Your task to perform on an android device: change notification settings in the gmail app Image 0: 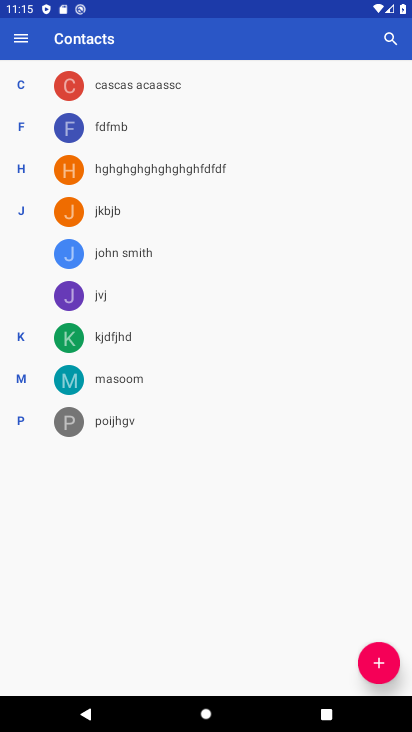
Step 0: press home button
Your task to perform on an android device: change notification settings in the gmail app Image 1: 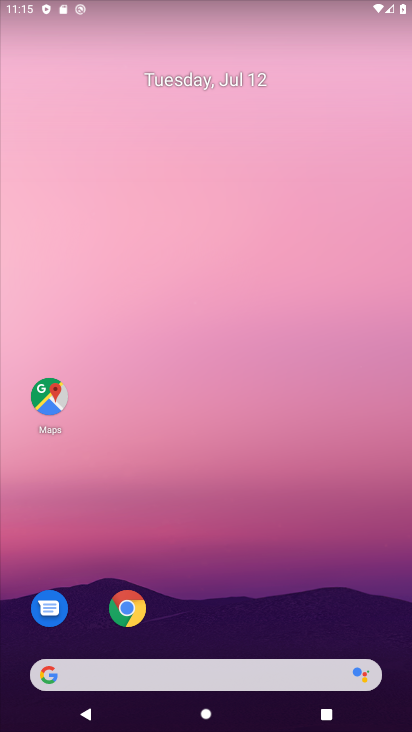
Step 1: drag from (193, 634) to (232, 35)
Your task to perform on an android device: change notification settings in the gmail app Image 2: 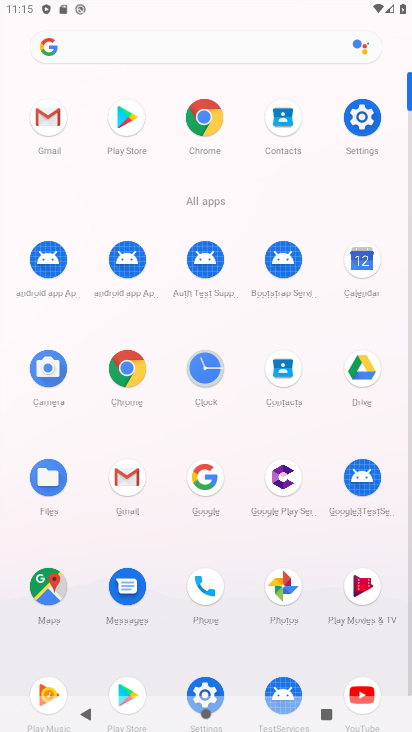
Step 2: click (28, 108)
Your task to perform on an android device: change notification settings in the gmail app Image 3: 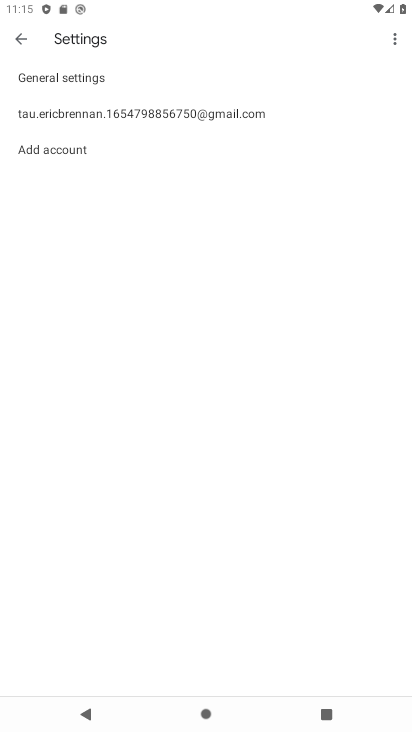
Step 3: click (116, 117)
Your task to perform on an android device: change notification settings in the gmail app Image 4: 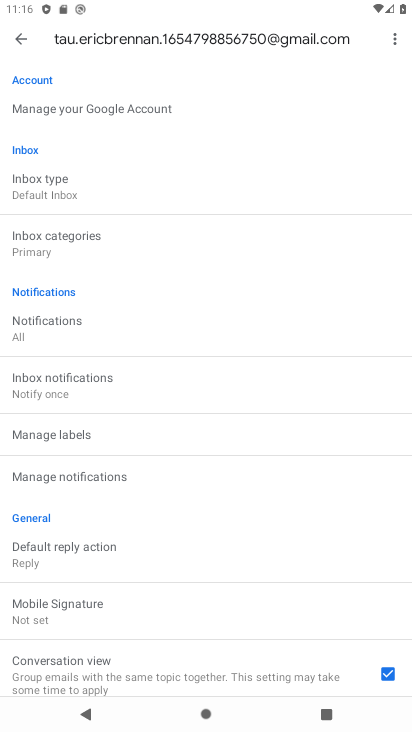
Step 4: click (102, 328)
Your task to perform on an android device: change notification settings in the gmail app Image 5: 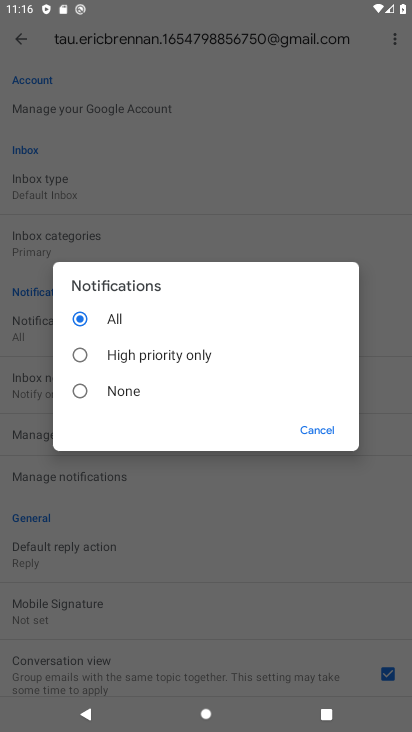
Step 5: click (118, 391)
Your task to perform on an android device: change notification settings in the gmail app Image 6: 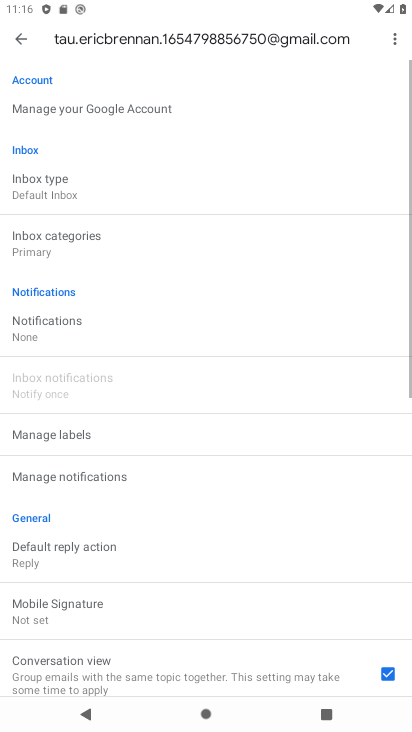
Step 6: task complete